Your task to perform on an android device: Open accessibility settings Image 0: 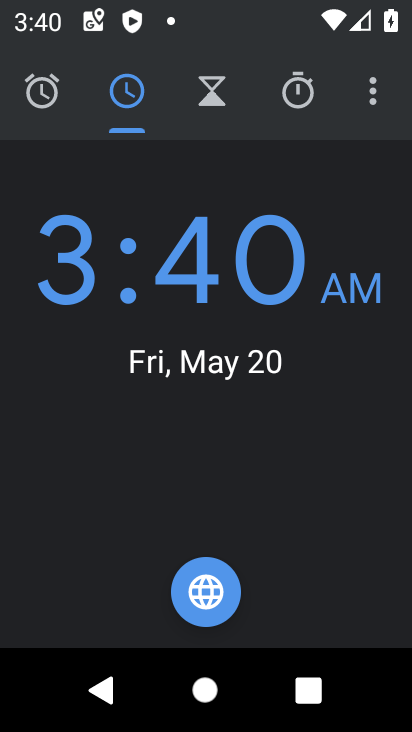
Step 0: press home button
Your task to perform on an android device: Open accessibility settings Image 1: 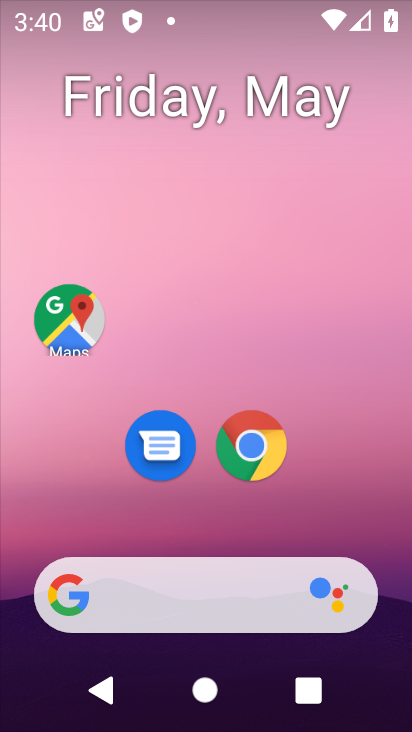
Step 1: drag from (233, 538) to (263, 207)
Your task to perform on an android device: Open accessibility settings Image 2: 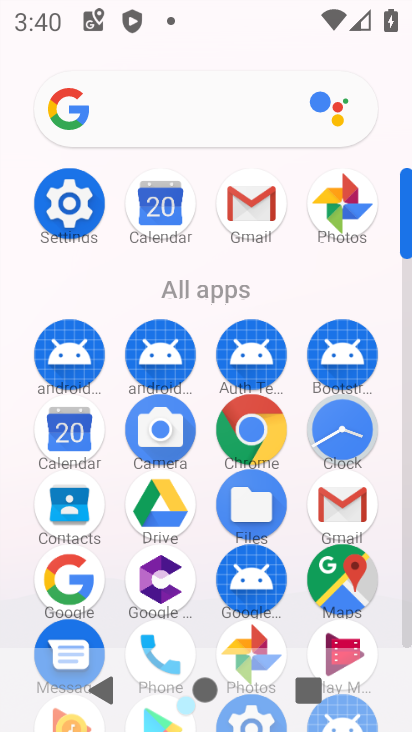
Step 2: click (81, 222)
Your task to perform on an android device: Open accessibility settings Image 3: 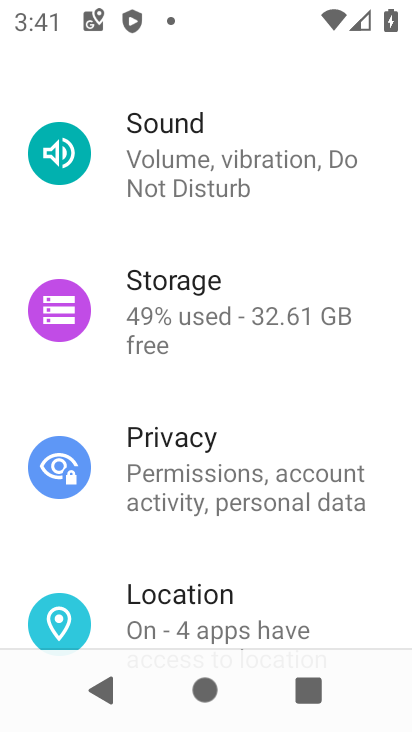
Step 3: drag from (246, 575) to (302, 196)
Your task to perform on an android device: Open accessibility settings Image 4: 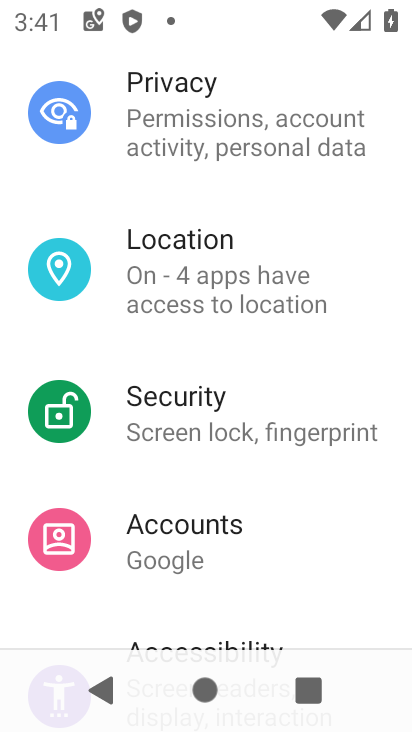
Step 4: drag from (233, 555) to (270, 331)
Your task to perform on an android device: Open accessibility settings Image 5: 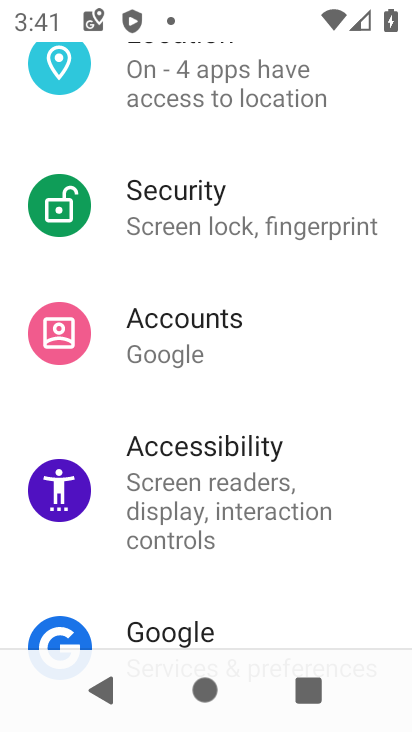
Step 5: click (225, 504)
Your task to perform on an android device: Open accessibility settings Image 6: 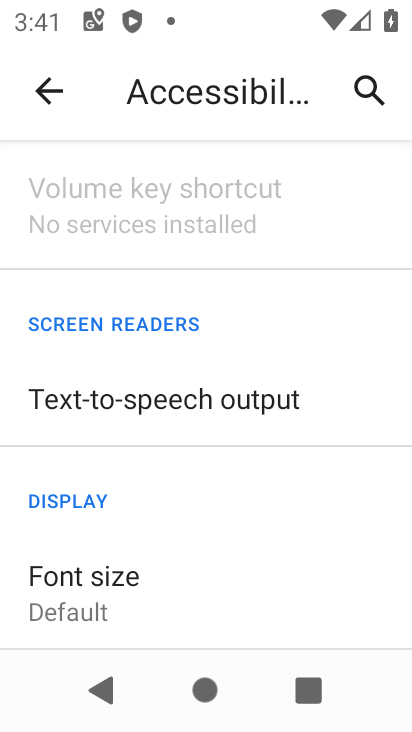
Step 6: task complete